Your task to perform on an android device: change the clock display to digital Image 0: 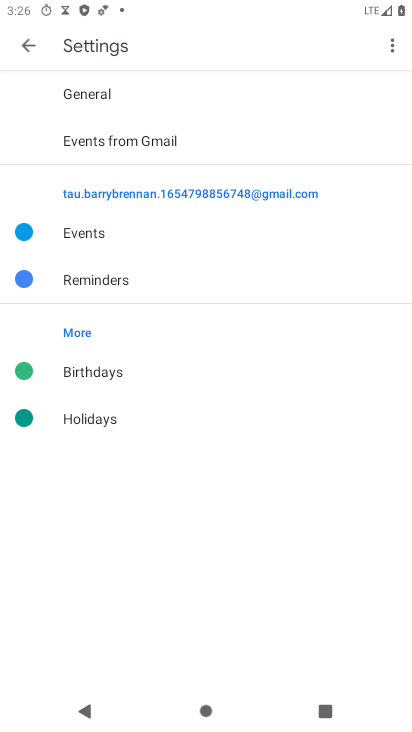
Step 0: press home button
Your task to perform on an android device: change the clock display to digital Image 1: 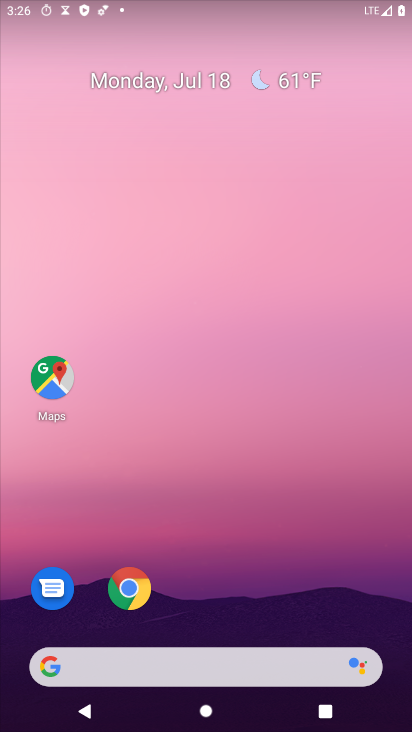
Step 1: drag from (284, 523) to (217, 29)
Your task to perform on an android device: change the clock display to digital Image 2: 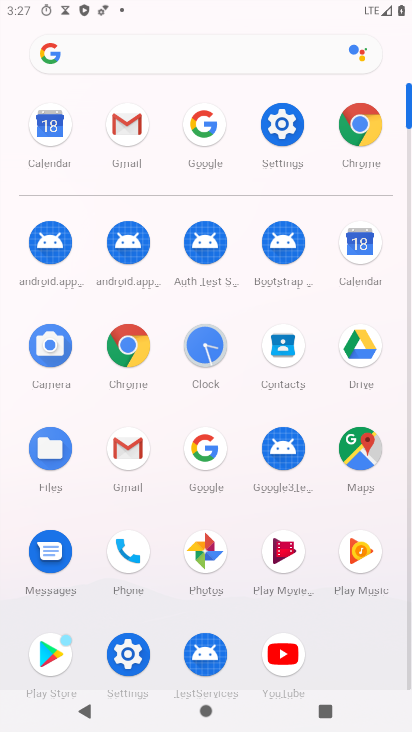
Step 2: click (207, 350)
Your task to perform on an android device: change the clock display to digital Image 3: 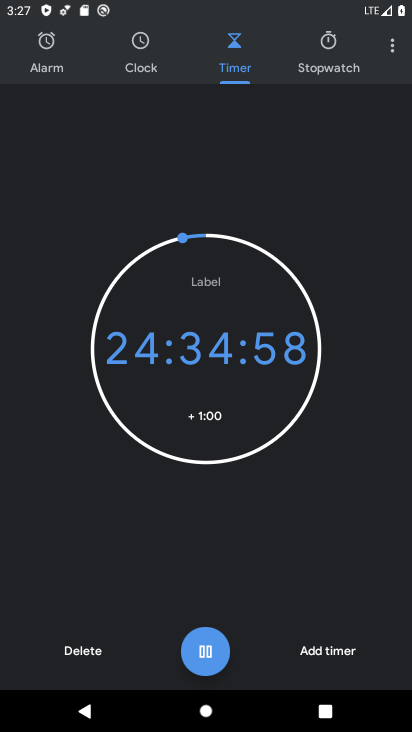
Step 3: click (397, 48)
Your task to perform on an android device: change the clock display to digital Image 4: 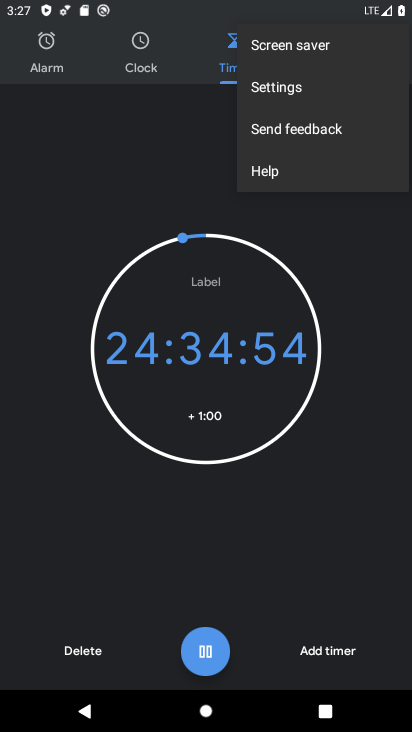
Step 4: click (300, 92)
Your task to perform on an android device: change the clock display to digital Image 5: 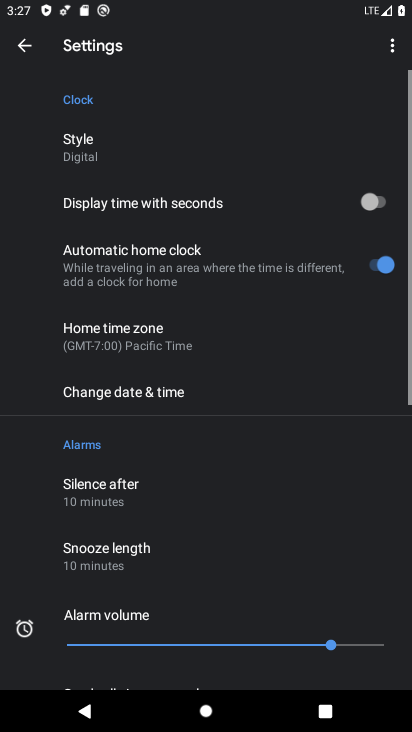
Step 5: click (96, 154)
Your task to perform on an android device: change the clock display to digital Image 6: 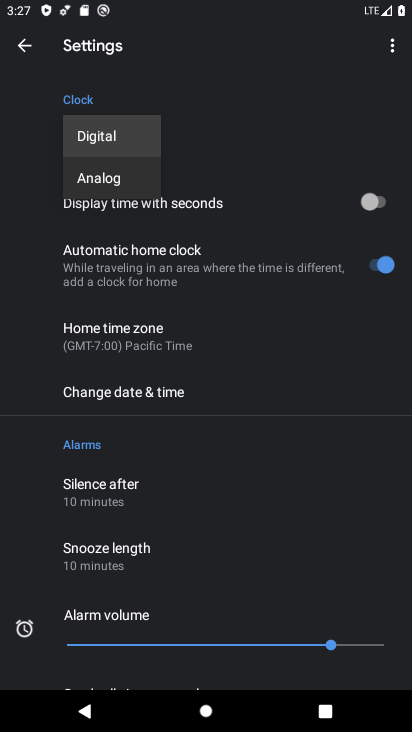
Step 6: task complete